Your task to perform on an android device: Go to accessibility settings Image 0: 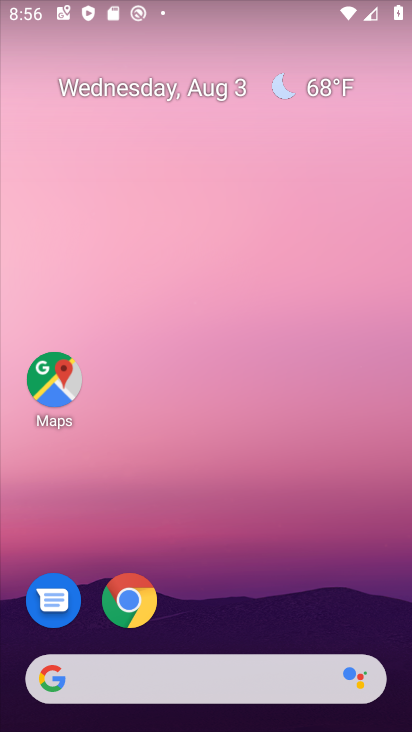
Step 0: drag from (233, 614) to (251, 79)
Your task to perform on an android device: Go to accessibility settings Image 1: 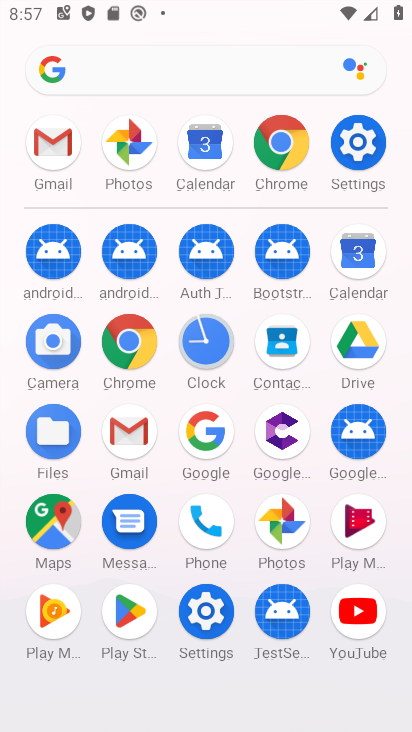
Step 1: click (223, 606)
Your task to perform on an android device: Go to accessibility settings Image 2: 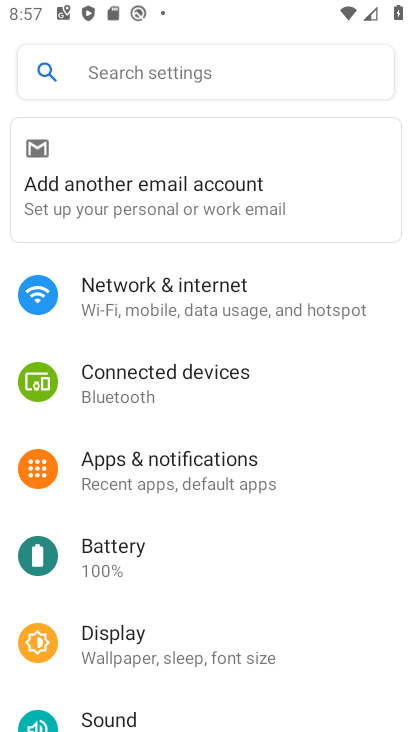
Step 2: drag from (226, 626) to (238, 176)
Your task to perform on an android device: Go to accessibility settings Image 3: 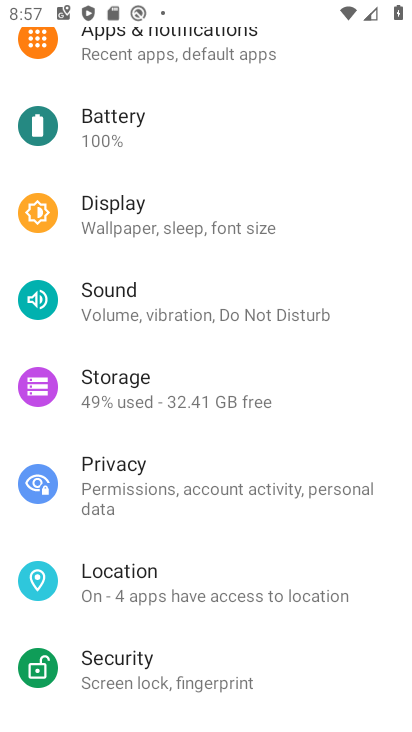
Step 3: drag from (159, 624) to (201, 251)
Your task to perform on an android device: Go to accessibility settings Image 4: 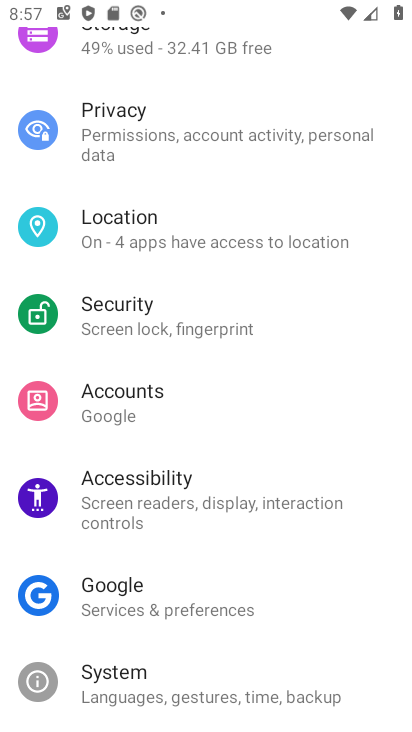
Step 4: click (180, 494)
Your task to perform on an android device: Go to accessibility settings Image 5: 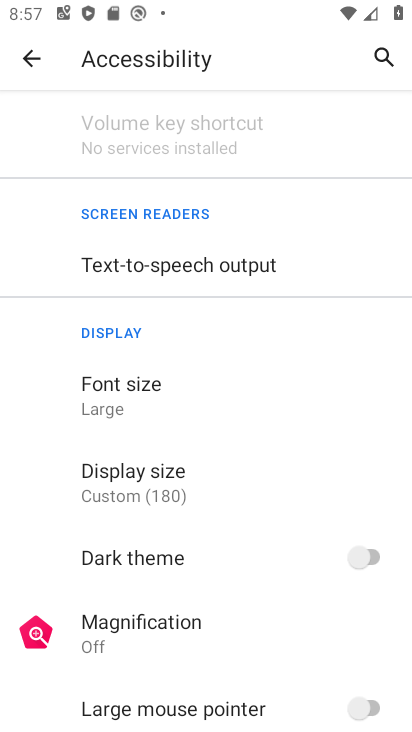
Step 5: task complete